Your task to perform on an android device: change the upload size in google photos Image 0: 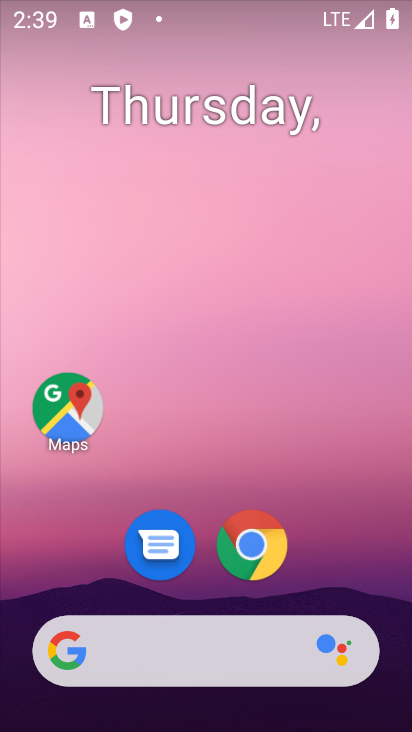
Step 0: drag from (282, 616) to (288, 71)
Your task to perform on an android device: change the upload size in google photos Image 1: 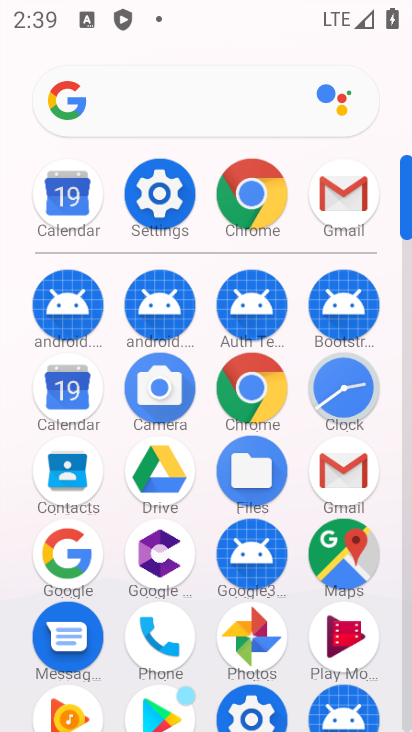
Step 1: click (259, 629)
Your task to perform on an android device: change the upload size in google photos Image 2: 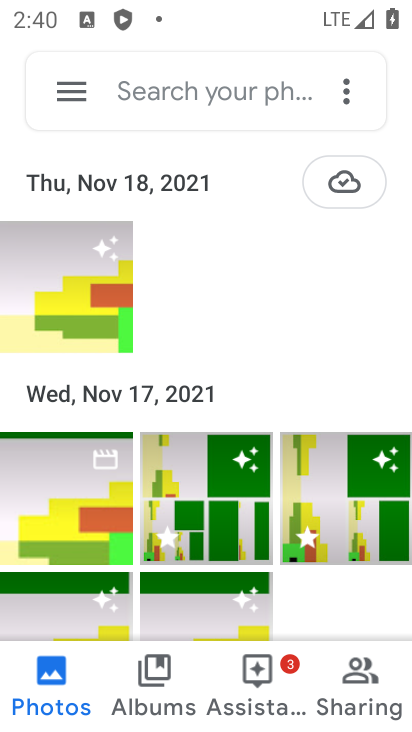
Step 2: click (70, 87)
Your task to perform on an android device: change the upload size in google photos Image 3: 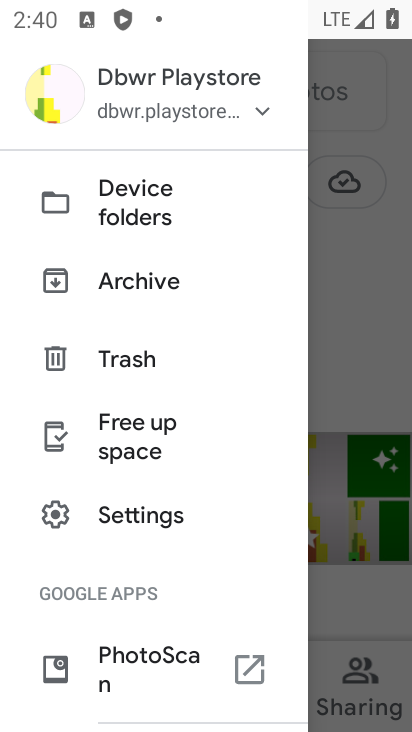
Step 3: click (144, 509)
Your task to perform on an android device: change the upload size in google photos Image 4: 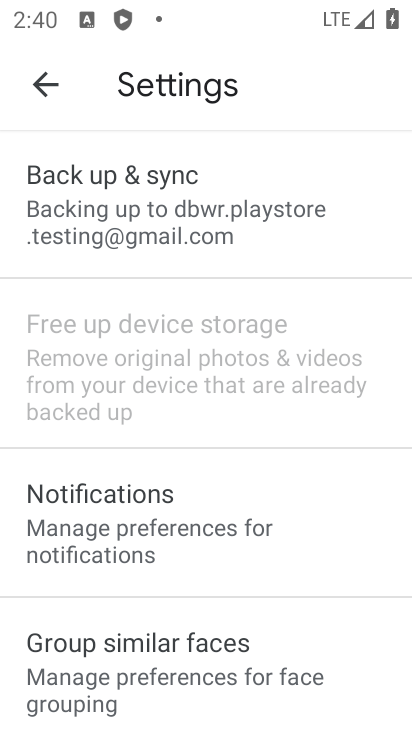
Step 4: drag from (188, 674) to (196, 201)
Your task to perform on an android device: change the upload size in google photos Image 5: 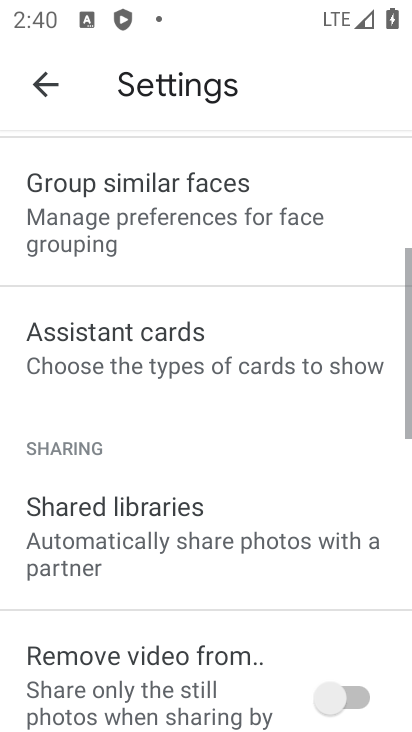
Step 5: drag from (196, 201) to (182, 709)
Your task to perform on an android device: change the upload size in google photos Image 6: 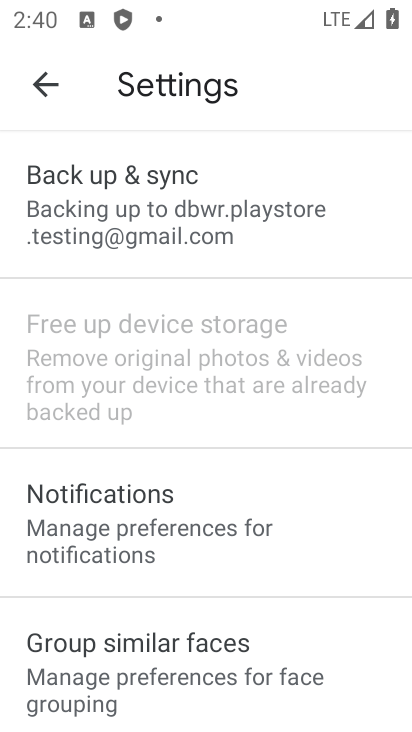
Step 6: click (221, 223)
Your task to perform on an android device: change the upload size in google photos Image 7: 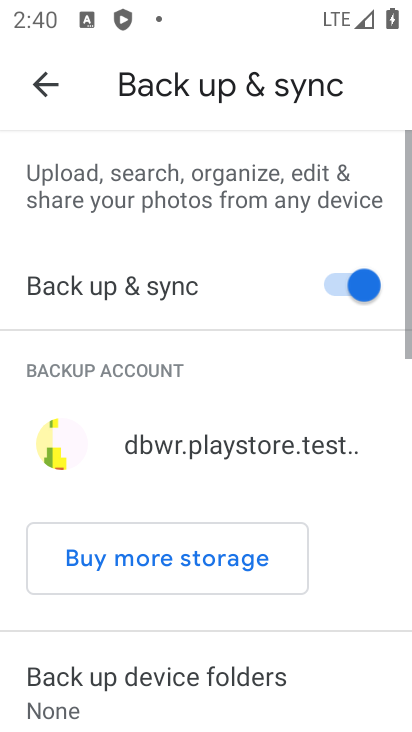
Step 7: drag from (235, 635) to (276, 200)
Your task to perform on an android device: change the upload size in google photos Image 8: 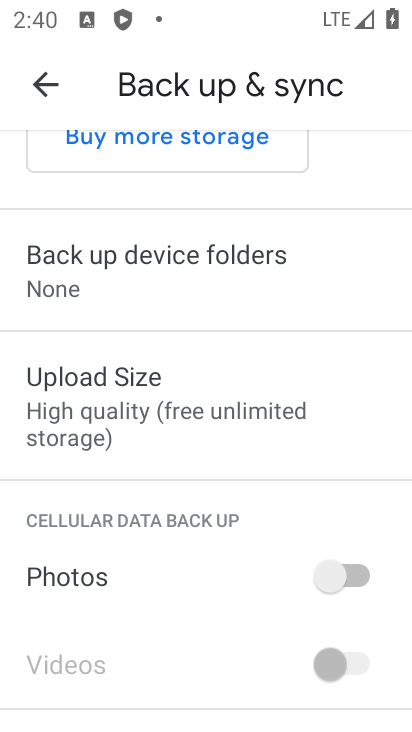
Step 8: click (240, 428)
Your task to perform on an android device: change the upload size in google photos Image 9: 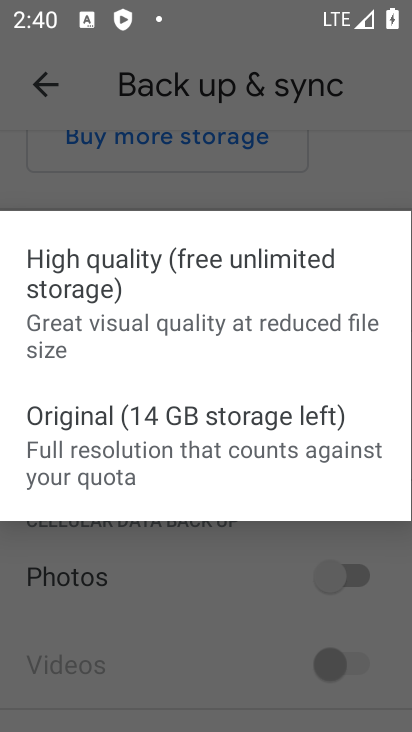
Step 9: click (195, 425)
Your task to perform on an android device: change the upload size in google photos Image 10: 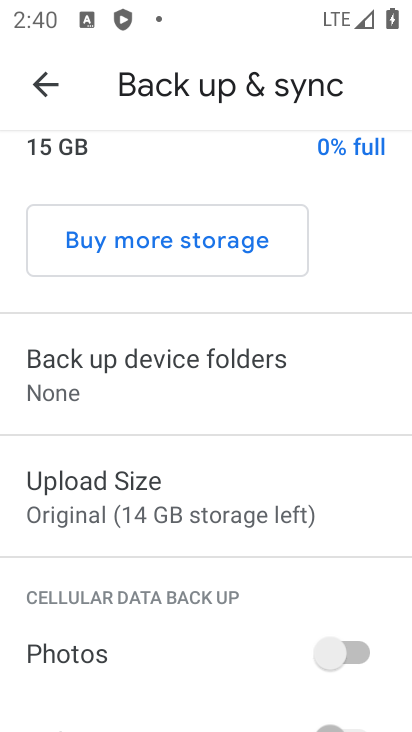
Step 10: task complete